Your task to perform on an android device: turn off wifi Image 0: 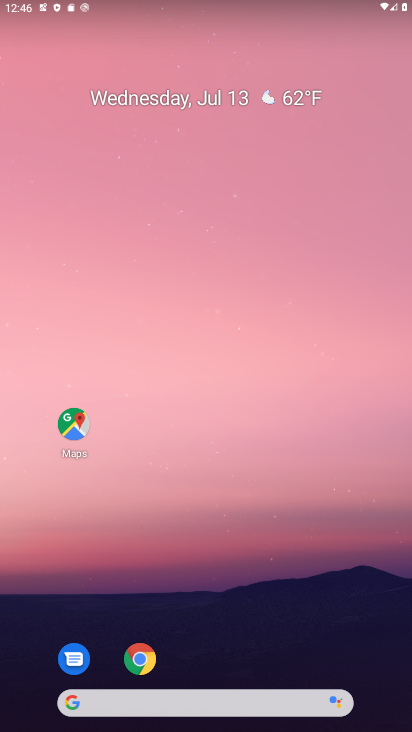
Step 0: drag from (212, 673) to (213, 76)
Your task to perform on an android device: turn off wifi Image 1: 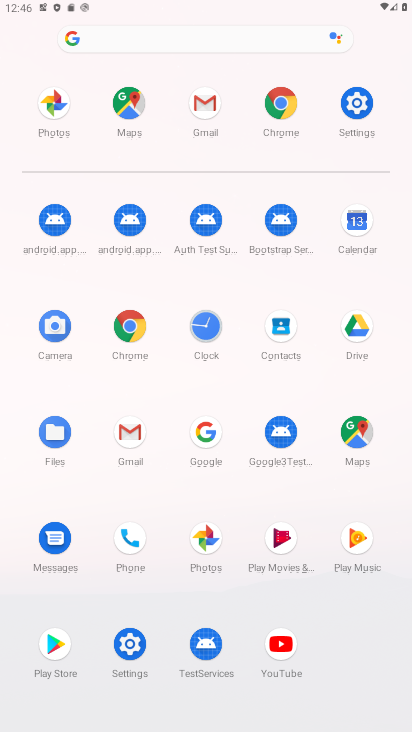
Step 1: click (363, 103)
Your task to perform on an android device: turn off wifi Image 2: 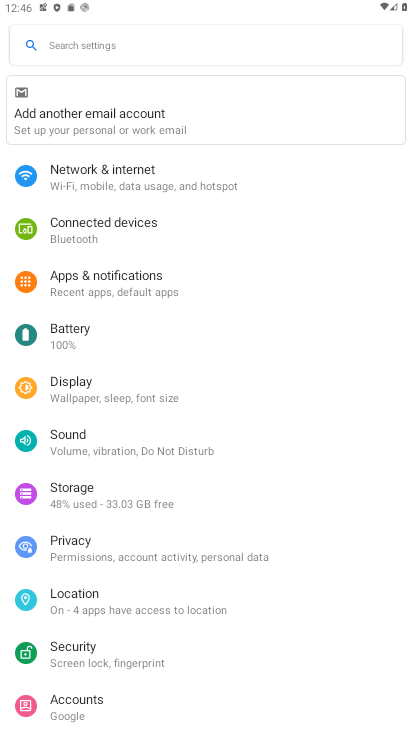
Step 2: click (85, 177)
Your task to perform on an android device: turn off wifi Image 3: 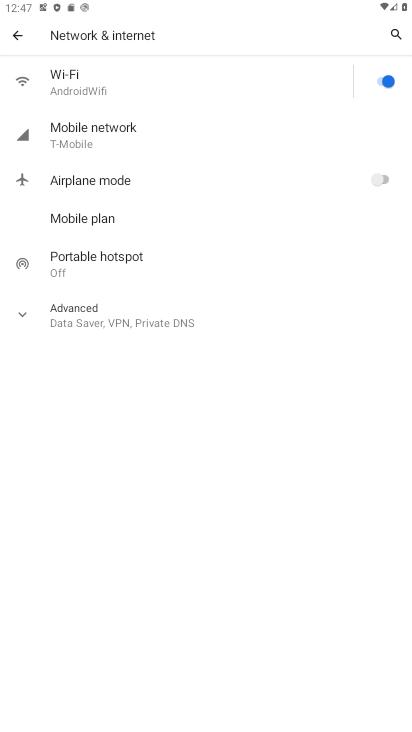
Step 3: click (386, 79)
Your task to perform on an android device: turn off wifi Image 4: 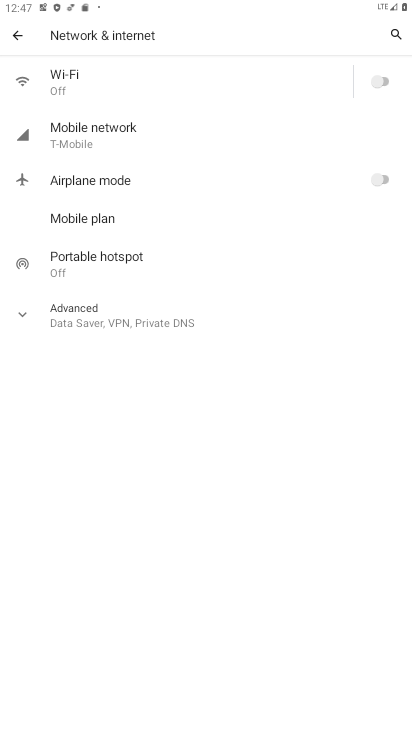
Step 4: task complete